Your task to perform on an android device: turn off priority inbox in the gmail app Image 0: 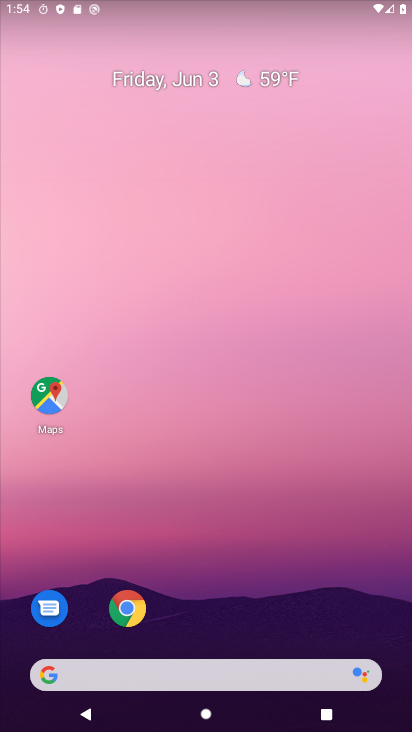
Step 0: click (359, 379)
Your task to perform on an android device: turn off priority inbox in the gmail app Image 1: 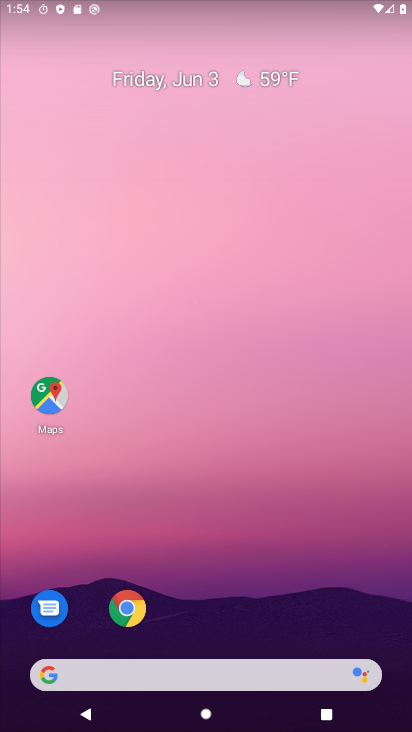
Step 1: drag from (212, 669) to (229, 0)
Your task to perform on an android device: turn off priority inbox in the gmail app Image 2: 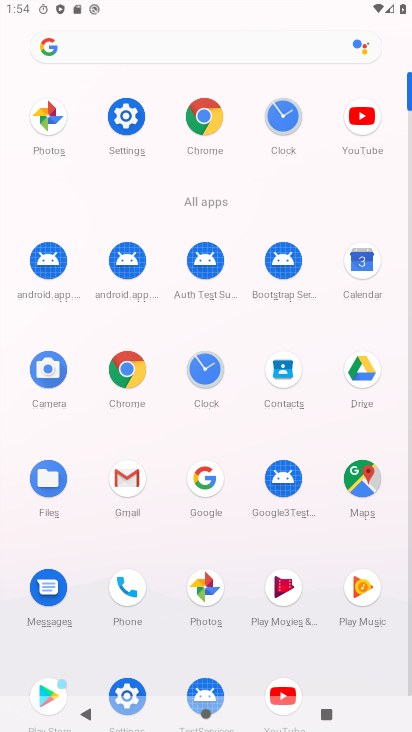
Step 2: click (135, 486)
Your task to perform on an android device: turn off priority inbox in the gmail app Image 3: 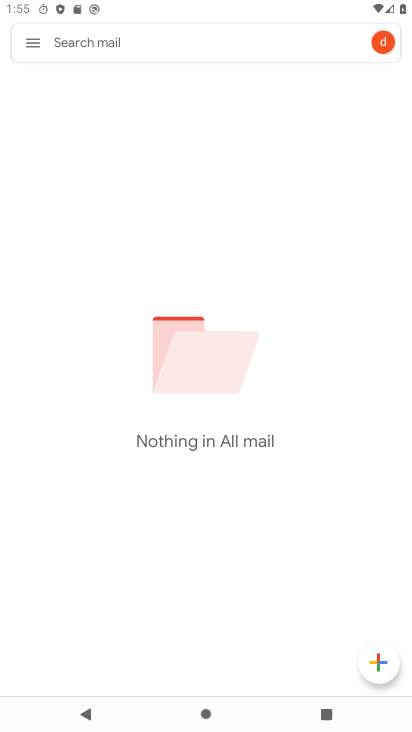
Step 3: click (35, 47)
Your task to perform on an android device: turn off priority inbox in the gmail app Image 4: 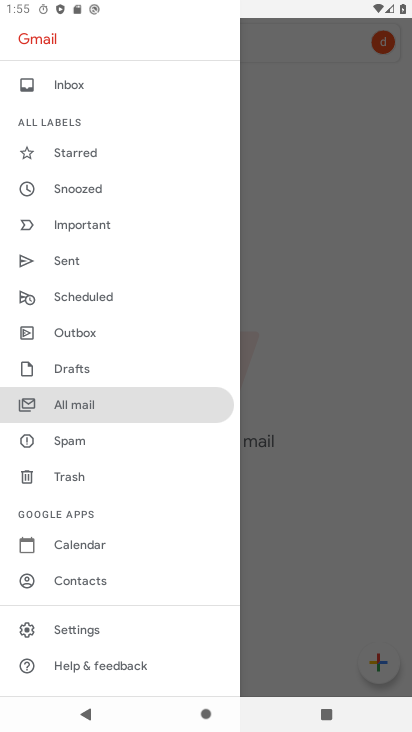
Step 4: click (94, 626)
Your task to perform on an android device: turn off priority inbox in the gmail app Image 5: 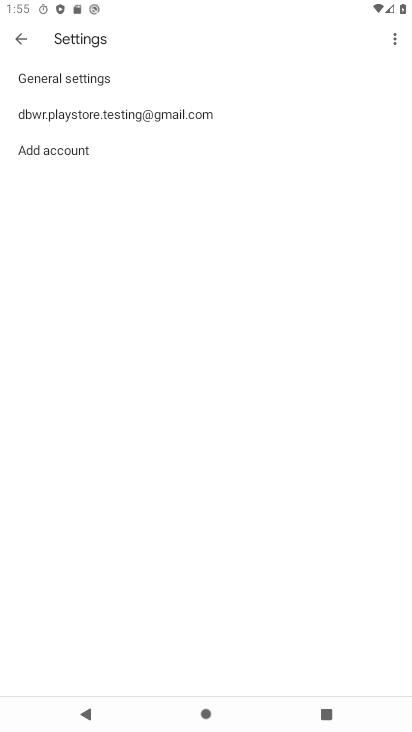
Step 5: click (100, 113)
Your task to perform on an android device: turn off priority inbox in the gmail app Image 6: 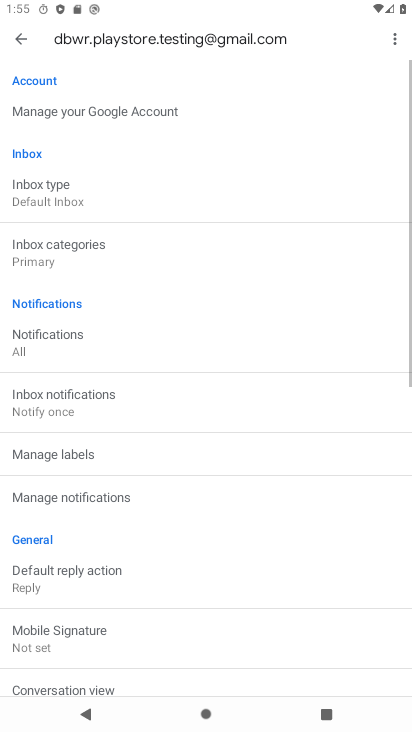
Step 6: click (65, 202)
Your task to perform on an android device: turn off priority inbox in the gmail app Image 7: 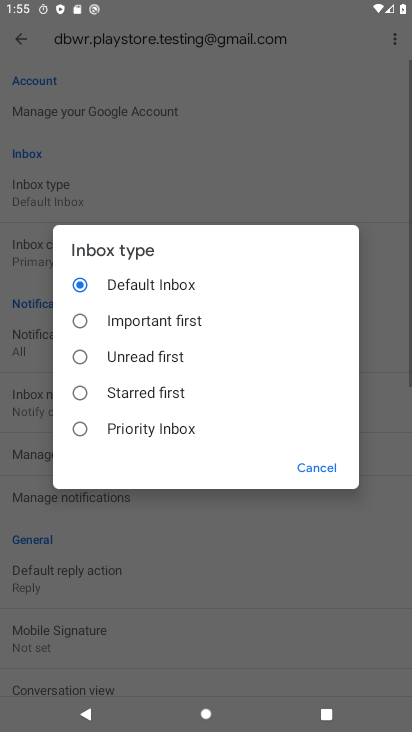
Step 7: click (135, 282)
Your task to perform on an android device: turn off priority inbox in the gmail app Image 8: 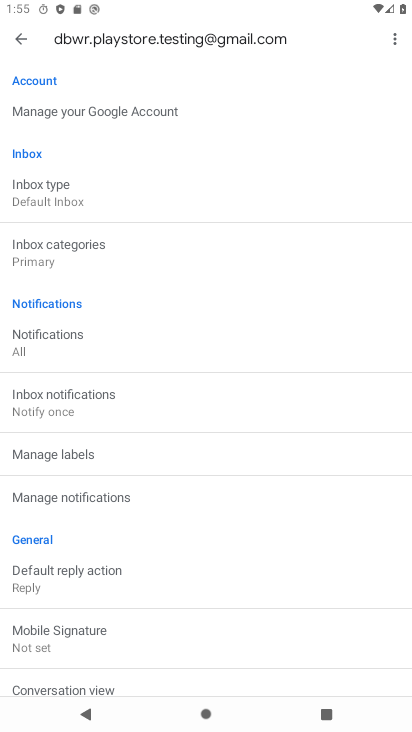
Step 8: task complete